Your task to perform on an android device: Go to Google maps Image 0: 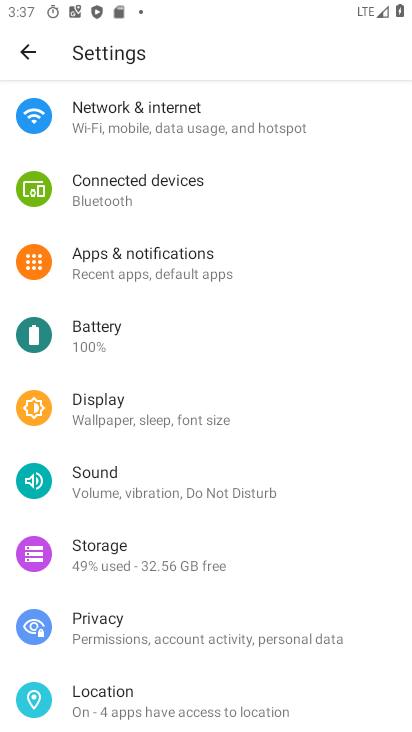
Step 0: press home button
Your task to perform on an android device: Go to Google maps Image 1: 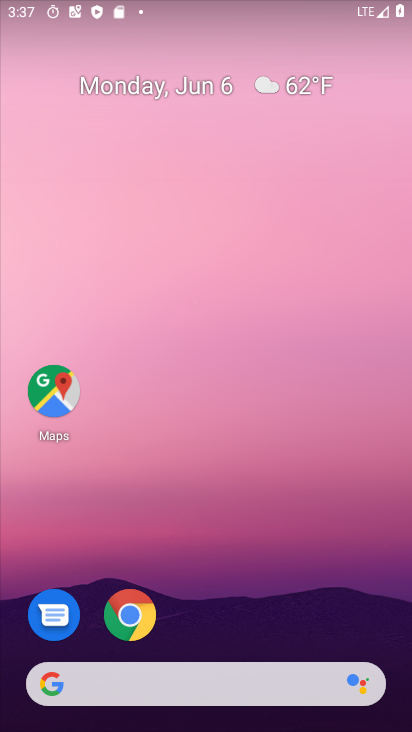
Step 1: drag from (235, 583) to (273, 13)
Your task to perform on an android device: Go to Google maps Image 2: 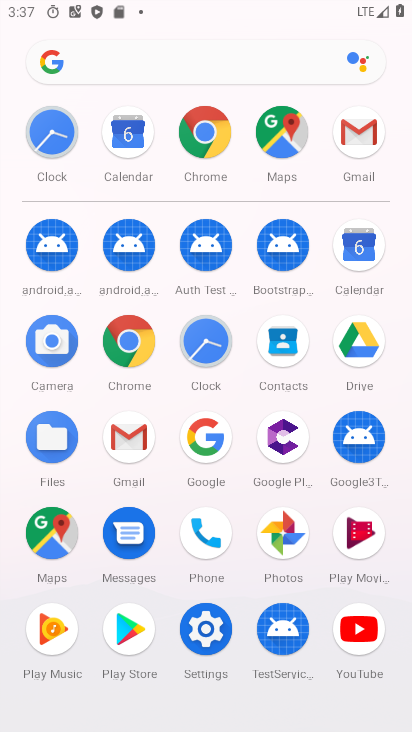
Step 2: click (45, 527)
Your task to perform on an android device: Go to Google maps Image 3: 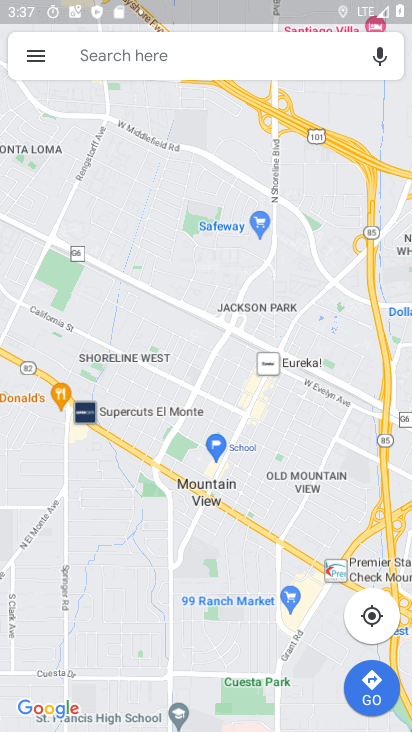
Step 3: task complete